Your task to perform on an android device: turn off translation in the chrome app Image 0: 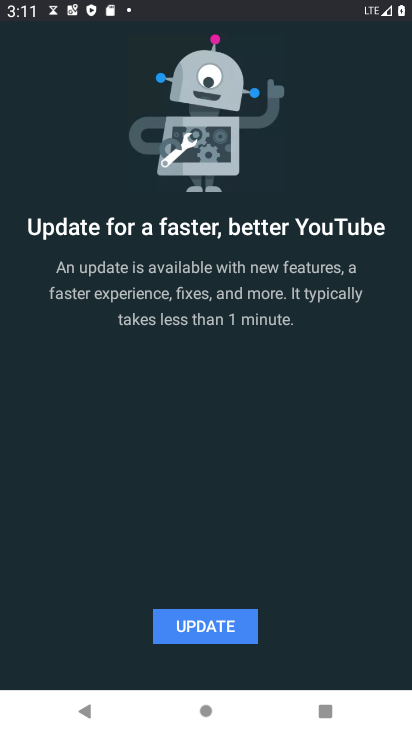
Step 0: drag from (159, 564) to (229, 80)
Your task to perform on an android device: turn off translation in the chrome app Image 1: 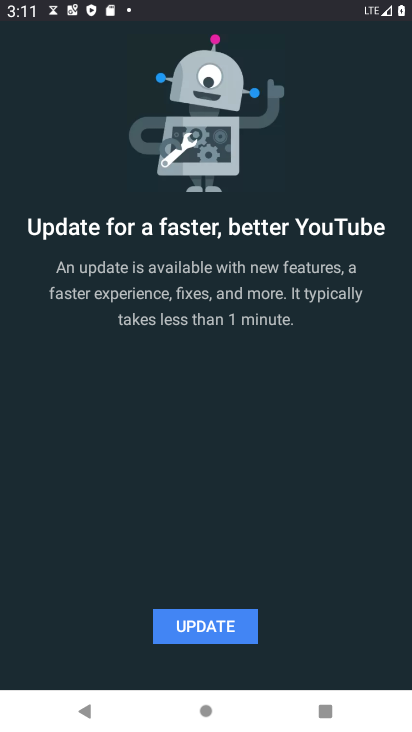
Step 1: drag from (194, 675) to (300, 37)
Your task to perform on an android device: turn off translation in the chrome app Image 2: 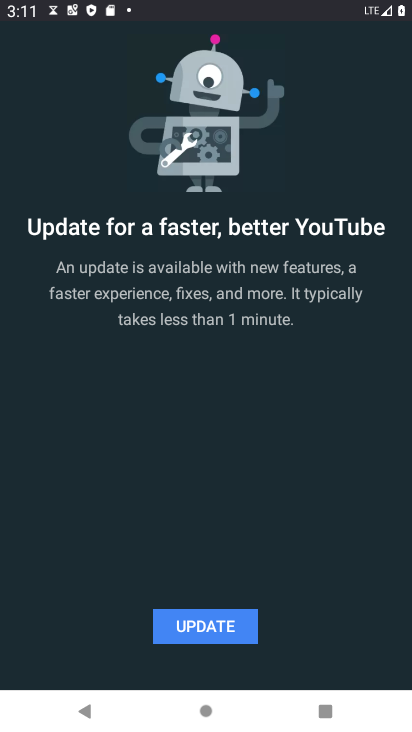
Step 2: press home button
Your task to perform on an android device: turn off translation in the chrome app Image 3: 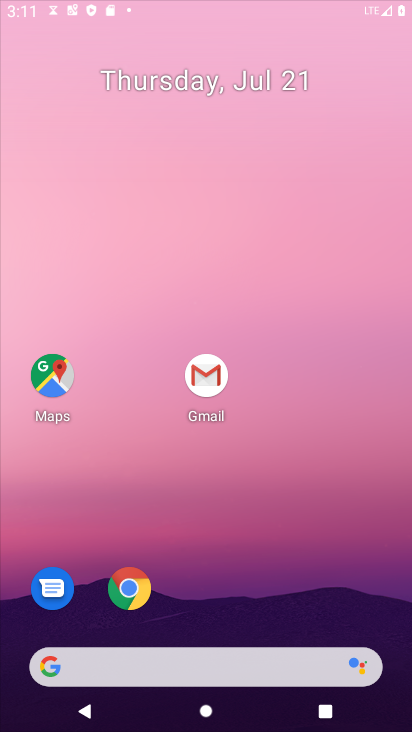
Step 3: drag from (233, 597) to (274, 43)
Your task to perform on an android device: turn off translation in the chrome app Image 4: 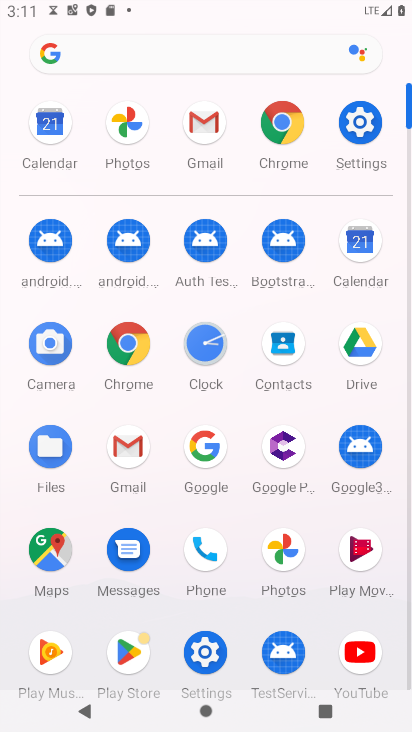
Step 4: click (279, 112)
Your task to perform on an android device: turn off translation in the chrome app Image 5: 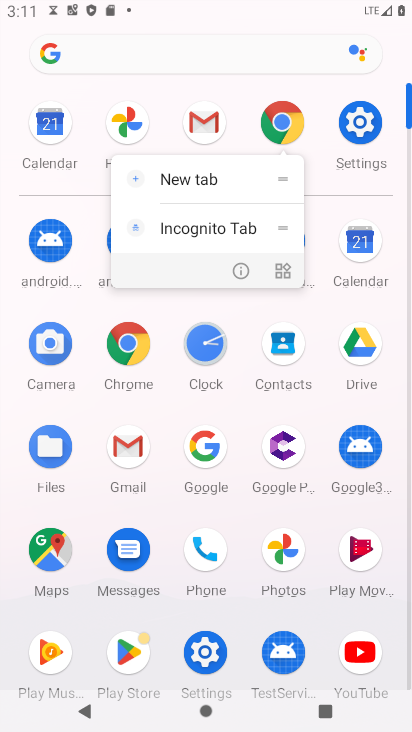
Step 5: click (244, 276)
Your task to perform on an android device: turn off translation in the chrome app Image 6: 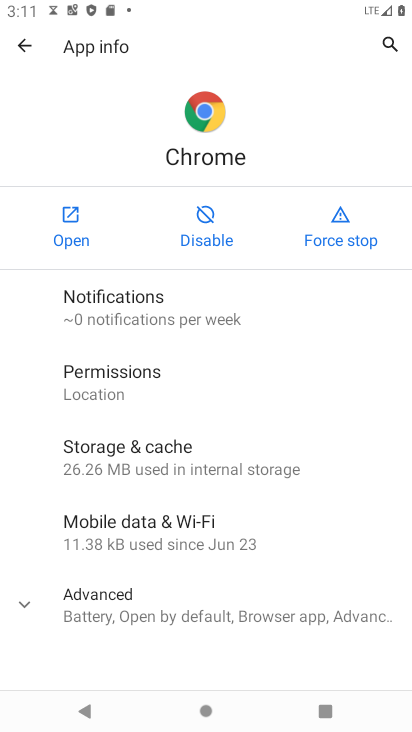
Step 6: click (67, 225)
Your task to perform on an android device: turn off translation in the chrome app Image 7: 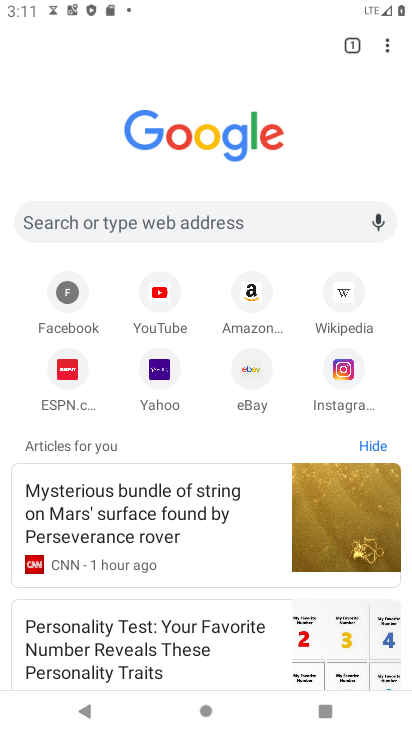
Step 7: drag from (185, 408) to (200, 163)
Your task to perform on an android device: turn off translation in the chrome app Image 8: 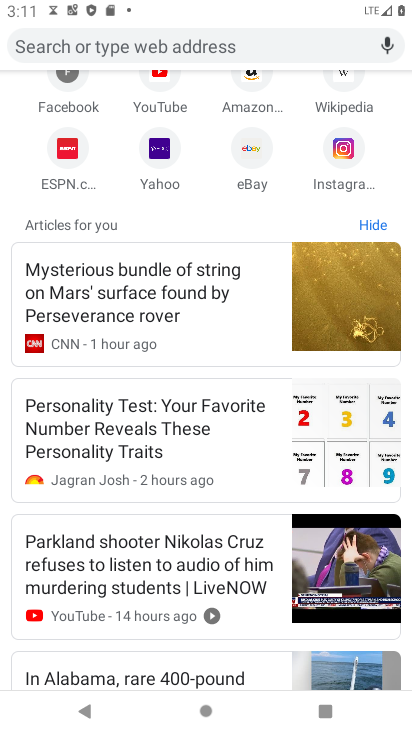
Step 8: drag from (172, 75) to (255, 571)
Your task to perform on an android device: turn off translation in the chrome app Image 9: 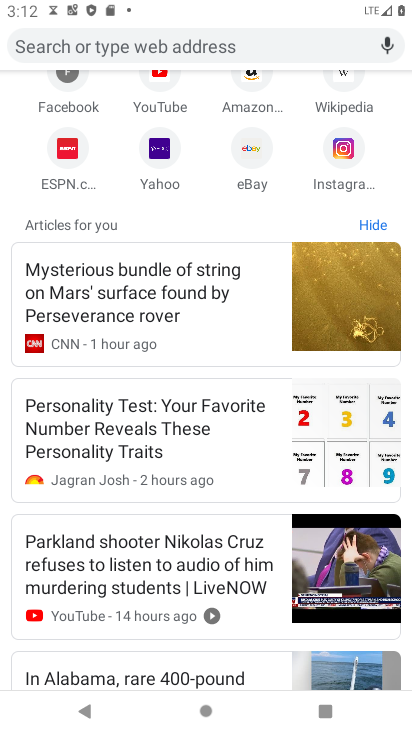
Step 9: drag from (286, 129) to (317, 537)
Your task to perform on an android device: turn off translation in the chrome app Image 10: 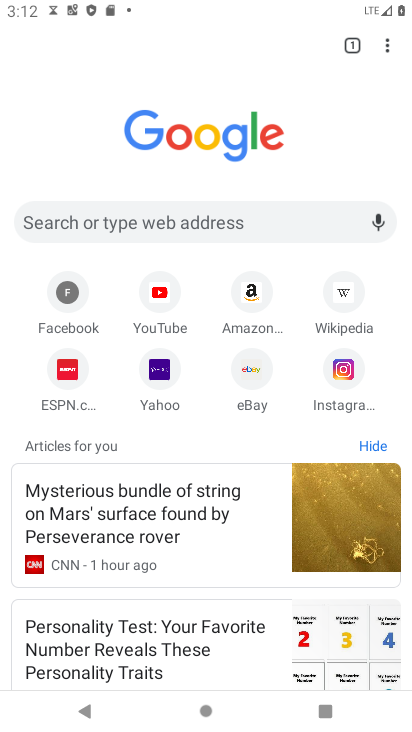
Step 10: drag from (387, 42) to (265, 423)
Your task to perform on an android device: turn off translation in the chrome app Image 11: 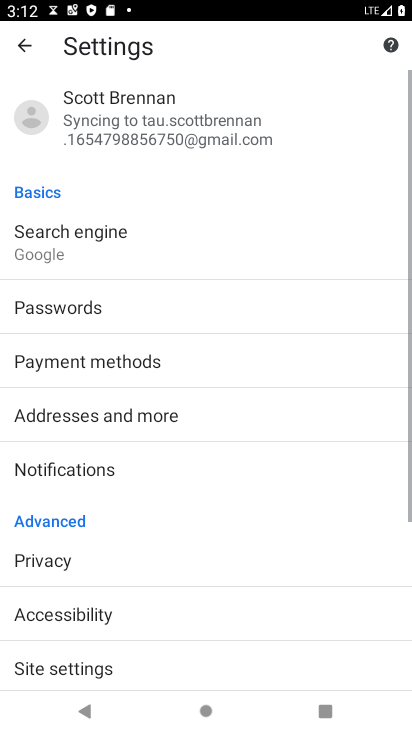
Step 11: drag from (225, 586) to (183, 122)
Your task to perform on an android device: turn off translation in the chrome app Image 12: 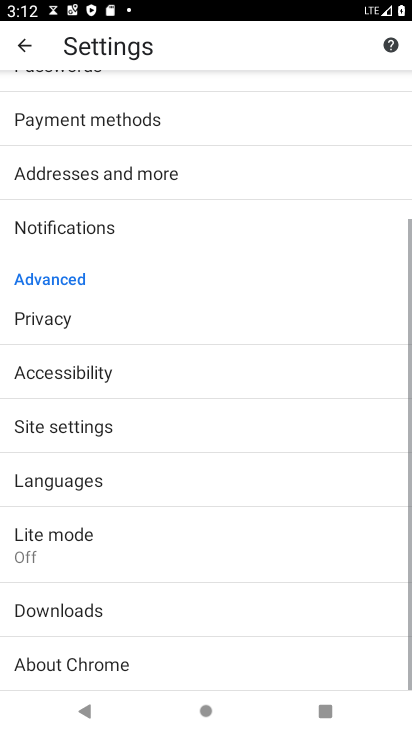
Step 12: drag from (182, 572) to (182, 297)
Your task to perform on an android device: turn off translation in the chrome app Image 13: 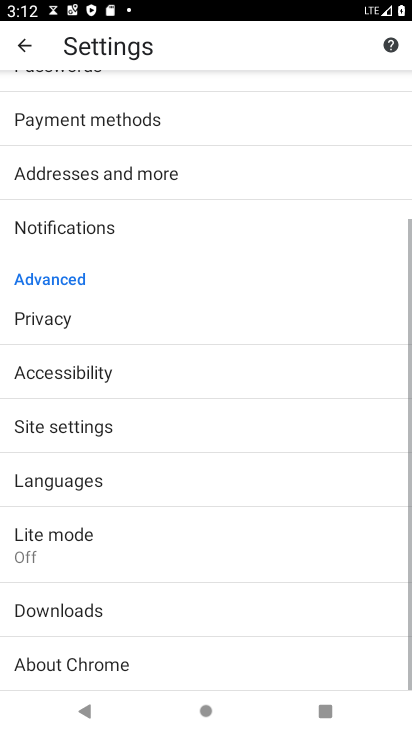
Step 13: drag from (141, 578) to (152, 370)
Your task to perform on an android device: turn off translation in the chrome app Image 14: 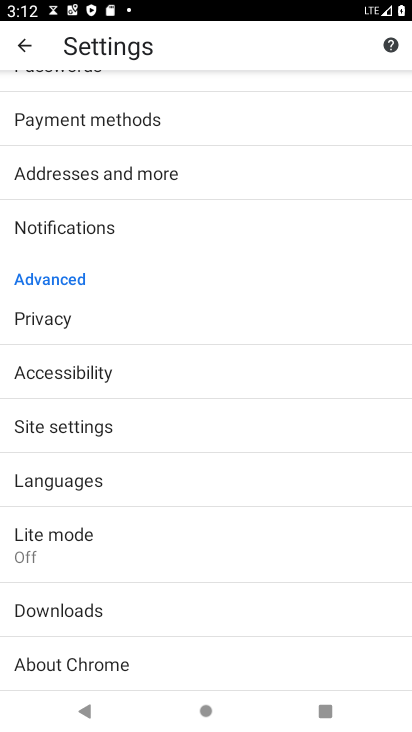
Step 14: click (111, 474)
Your task to perform on an android device: turn off translation in the chrome app Image 15: 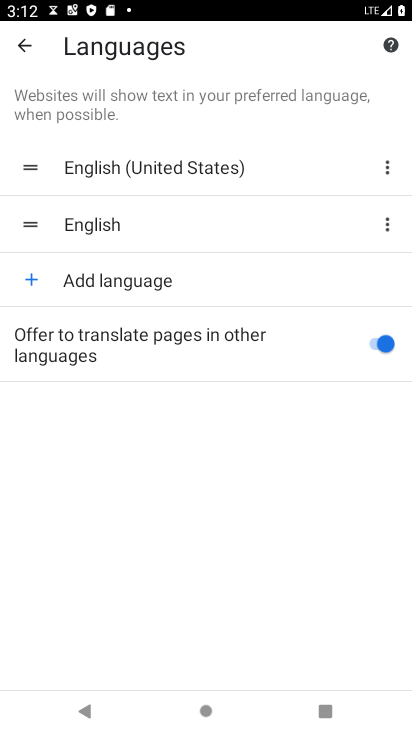
Step 15: click (371, 336)
Your task to perform on an android device: turn off translation in the chrome app Image 16: 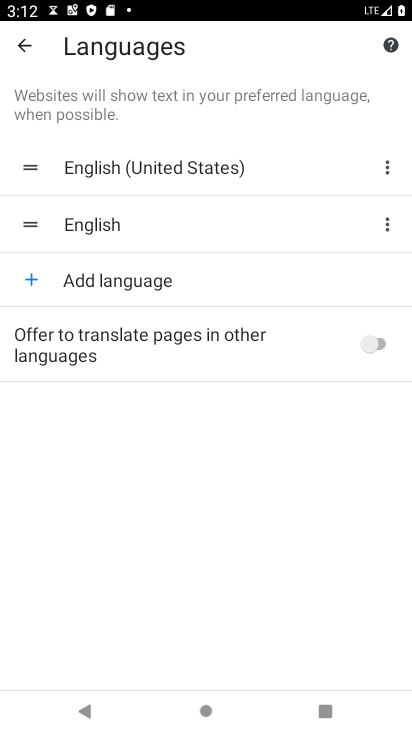
Step 16: task complete